Your task to perform on an android device: Search for asus rog on walmart.com, select the first entry, and add it to the cart. Image 0: 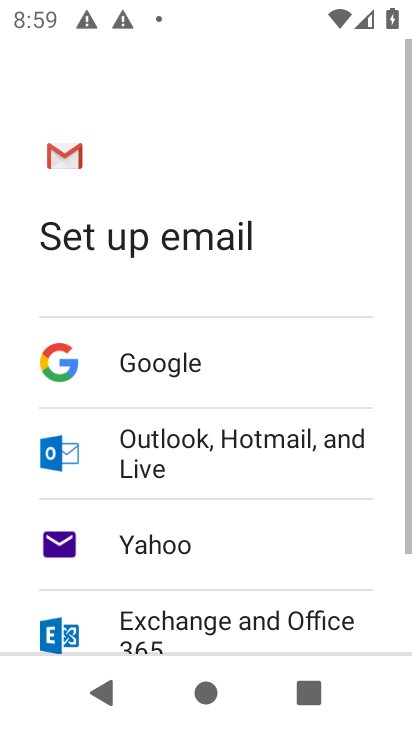
Step 0: press home button
Your task to perform on an android device: Search for asus rog on walmart.com, select the first entry, and add it to the cart. Image 1: 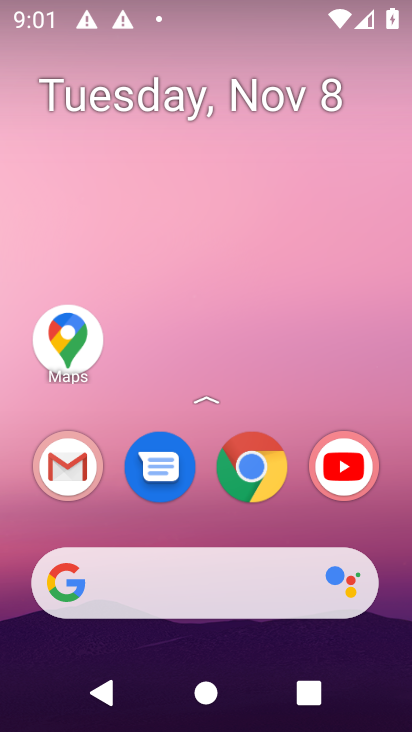
Step 1: click (210, 581)
Your task to perform on an android device: Search for asus rog on walmart.com, select the first entry, and add it to the cart. Image 2: 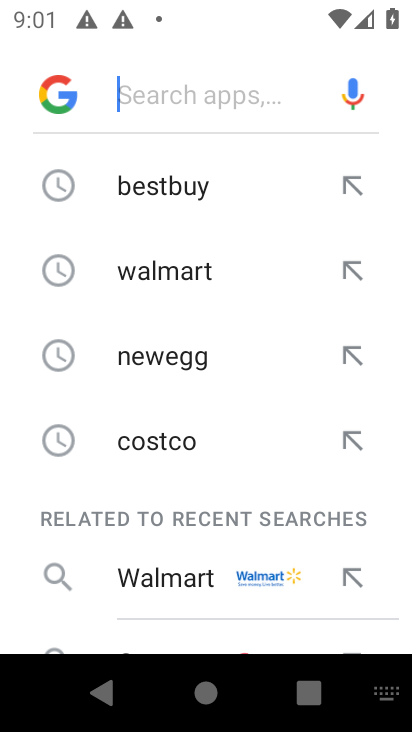
Step 2: click (190, 284)
Your task to perform on an android device: Search for asus rog on walmart.com, select the first entry, and add it to the cart. Image 3: 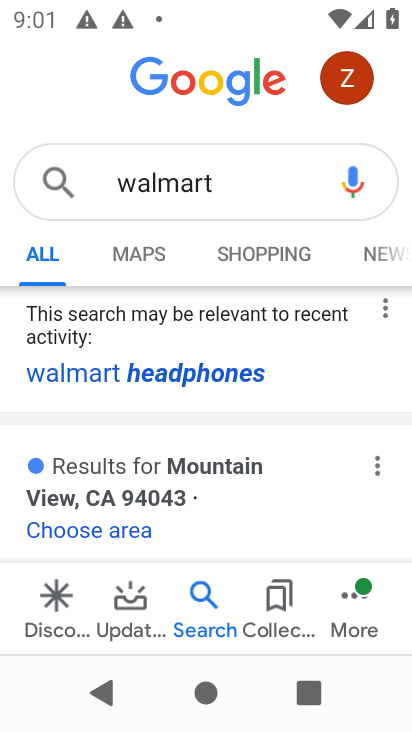
Step 3: click (164, 380)
Your task to perform on an android device: Search for asus rog on walmart.com, select the first entry, and add it to the cart. Image 4: 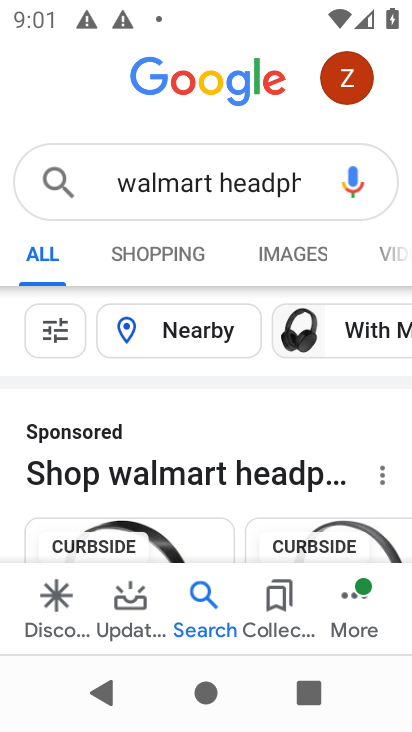
Step 4: task complete